Your task to perform on an android device: find snoozed emails in the gmail app Image 0: 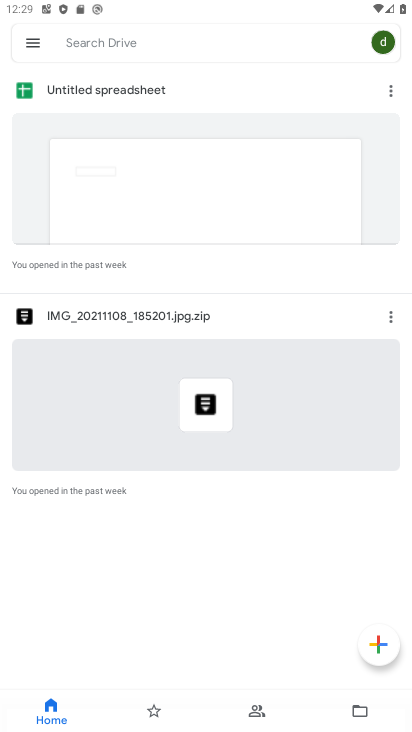
Step 0: press home button
Your task to perform on an android device: find snoozed emails in the gmail app Image 1: 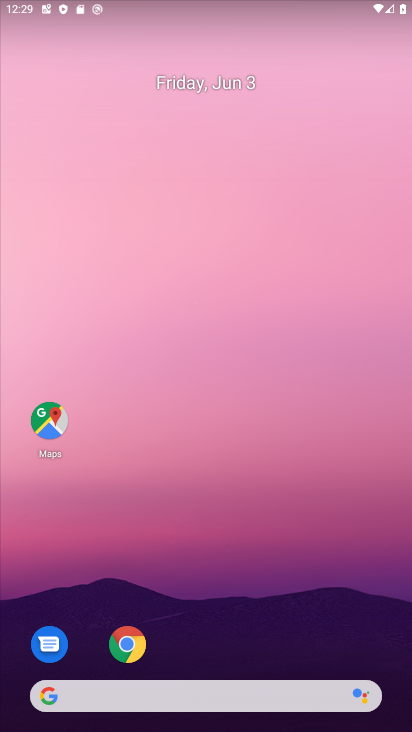
Step 1: drag from (219, 729) to (225, 97)
Your task to perform on an android device: find snoozed emails in the gmail app Image 2: 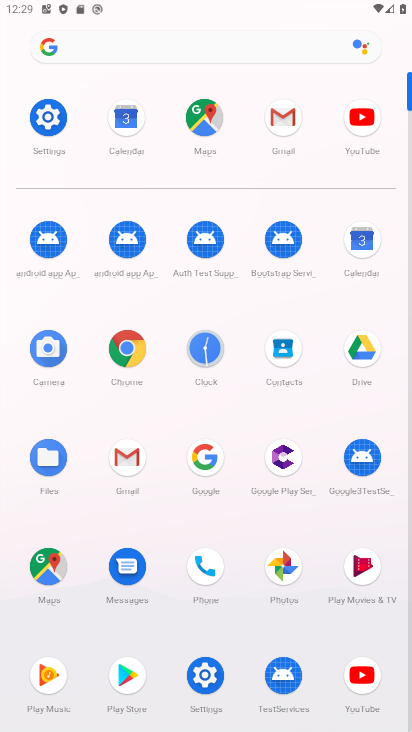
Step 2: click (125, 458)
Your task to perform on an android device: find snoozed emails in the gmail app Image 3: 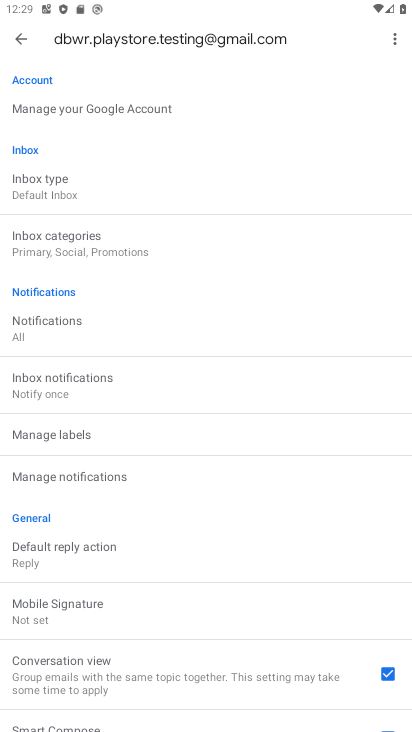
Step 3: click (19, 37)
Your task to perform on an android device: find snoozed emails in the gmail app Image 4: 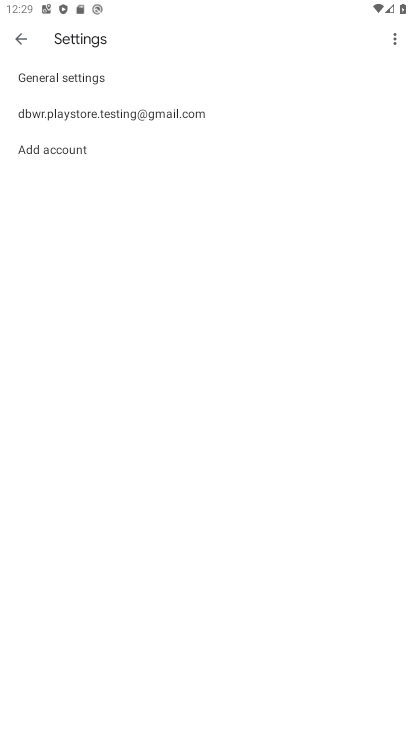
Step 4: click (19, 37)
Your task to perform on an android device: find snoozed emails in the gmail app Image 5: 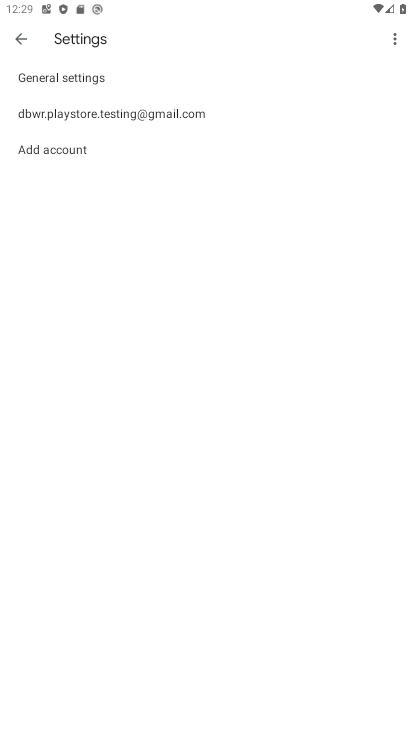
Step 5: click (23, 40)
Your task to perform on an android device: find snoozed emails in the gmail app Image 6: 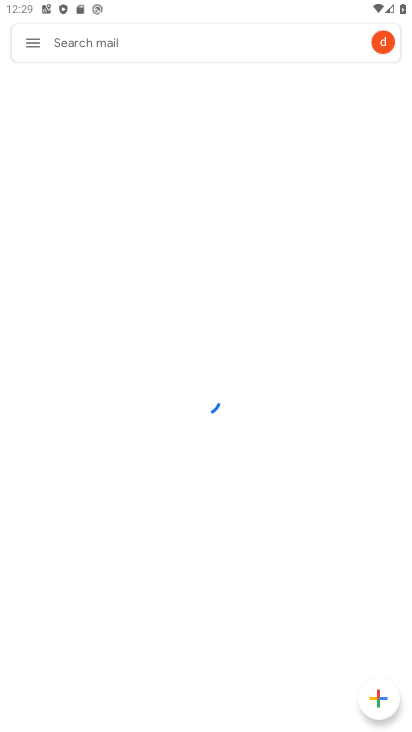
Step 6: click (34, 42)
Your task to perform on an android device: find snoozed emails in the gmail app Image 7: 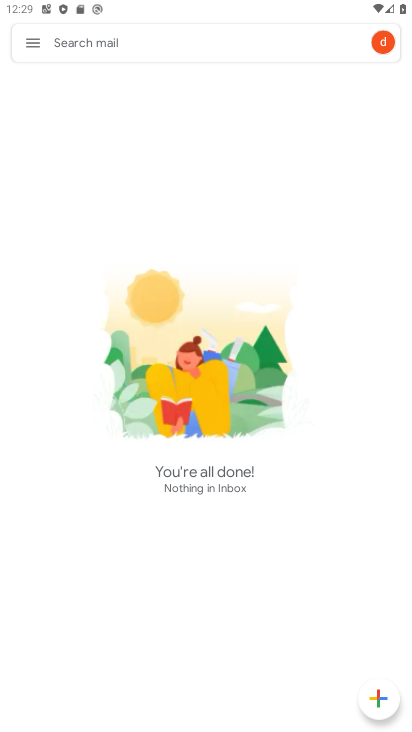
Step 7: click (33, 40)
Your task to perform on an android device: find snoozed emails in the gmail app Image 8: 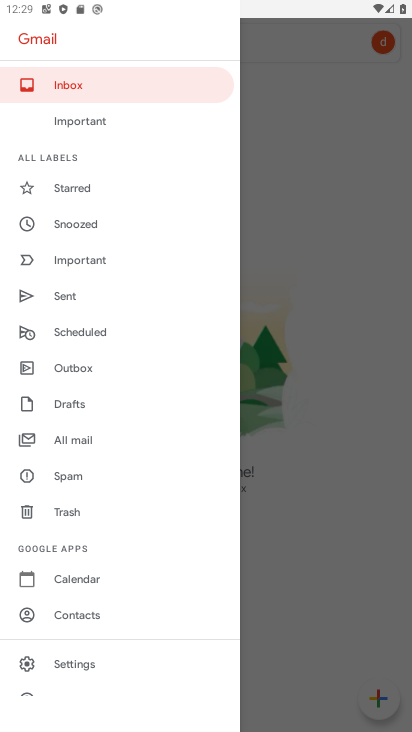
Step 8: click (86, 222)
Your task to perform on an android device: find snoozed emails in the gmail app Image 9: 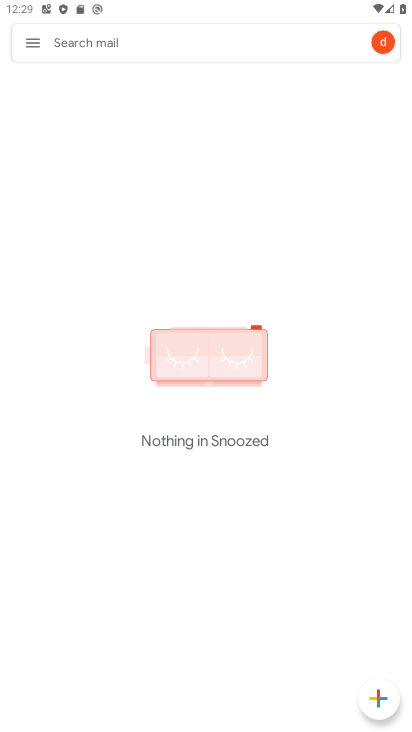
Step 9: task complete